Your task to perform on an android device: allow cookies in the chrome app Image 0: 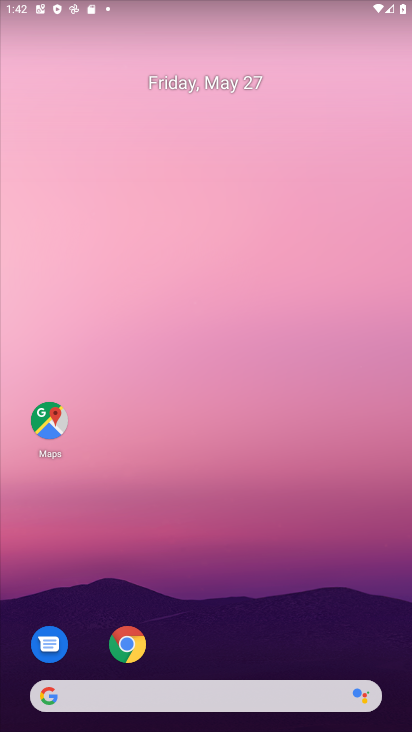
Step 0: drag from (273, 623) to (290, 25)
Your task to perform on an android device: allow cookies in the chrome app Image 1: 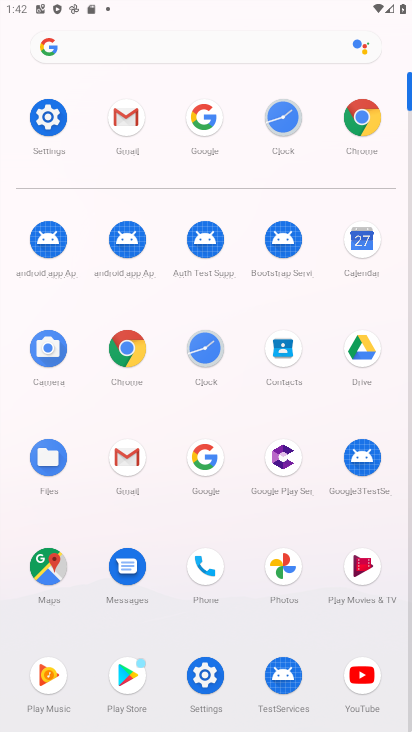
Step 1: click (374, 133)
Your task to perform on an android device: allow cookies in the chrome app Image 2: 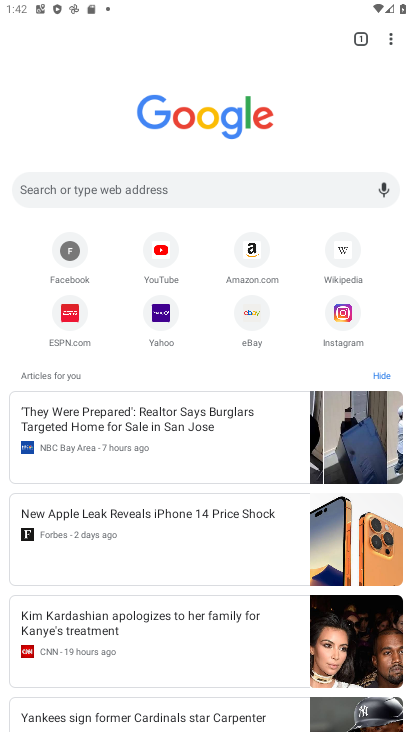
Step 2: click (392, 38)
Your task to perform on an android device: allow cookies in the chrome app Image 3: 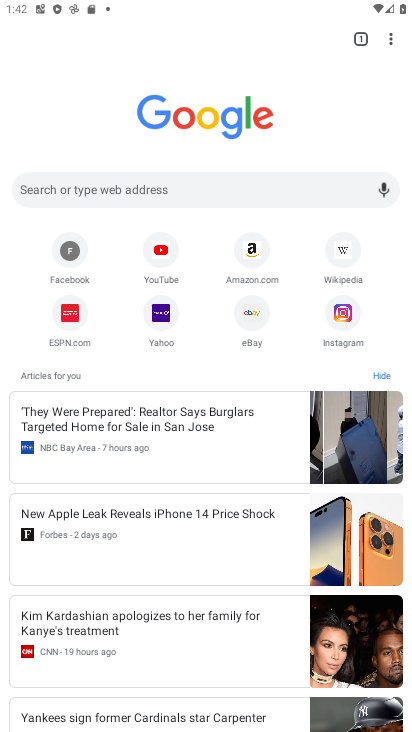
Step 3: click (392, 38)
Your task to perform on an android device: allow cookies in the chrome app Image 4: 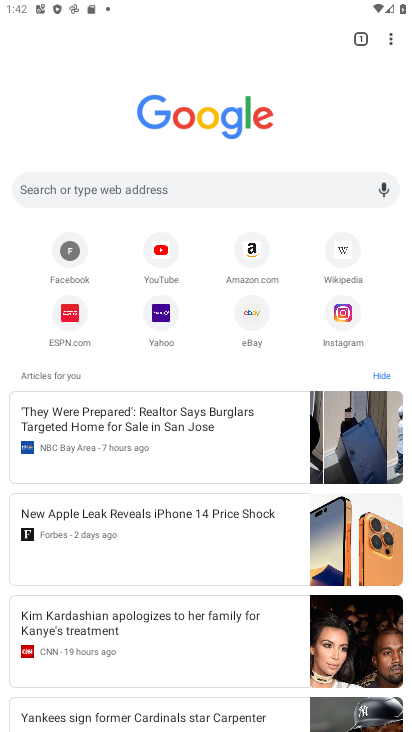
Step 4: click (391, 37)
Your task to perform on an android device: allow cookies in the chrome app Image 5: 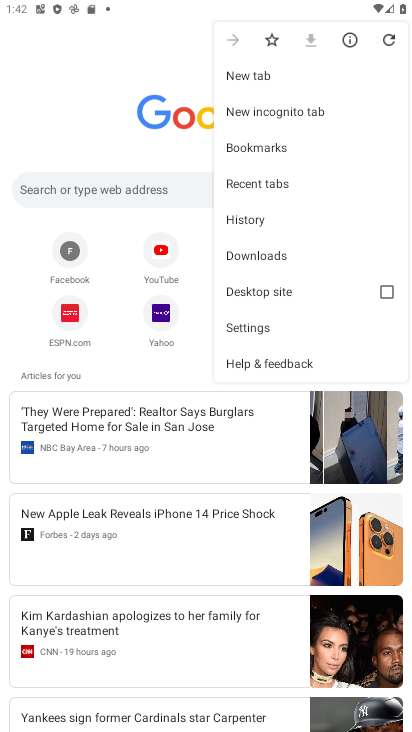
Step 5: click (280, 216)
Your task to perform on an android device: allow cookies in the chrome app Image 6: 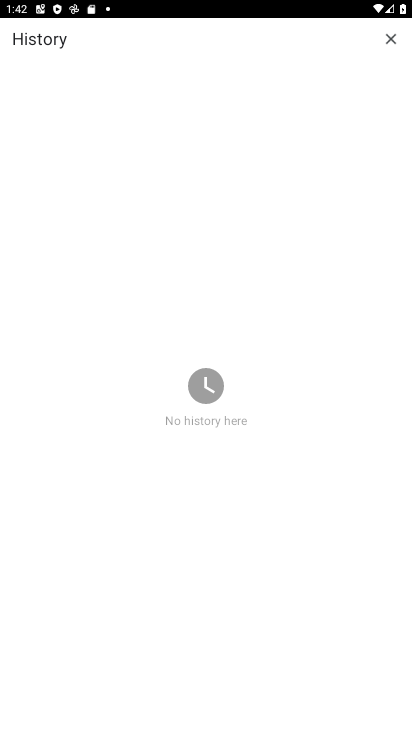
Step 6: task complete